Your task to perform on an android device: Go to location settings Image 0: 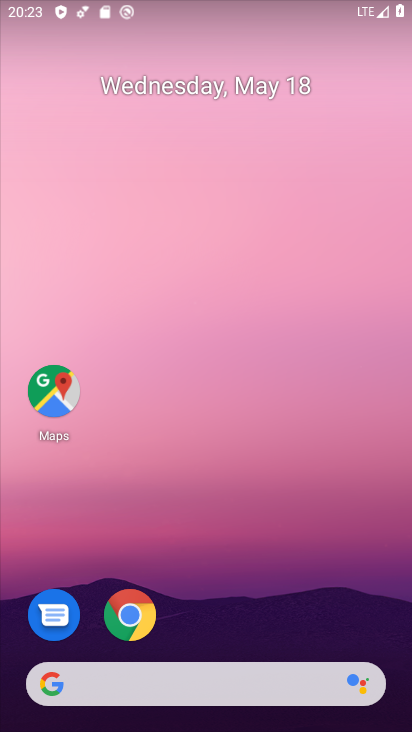
Step 0: drag from (197, 669) to (259, 57)
Your task to perform on an android device: Go to location settings Image 1: 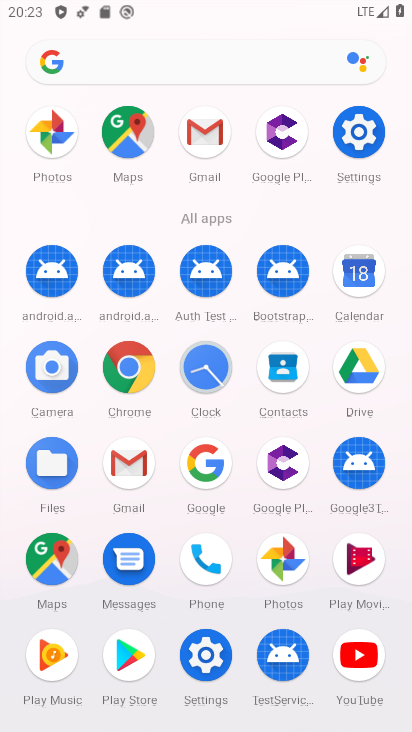
Step 1: click (363, 150)
Your task to perform on an android device: Go to location settings Image 2: 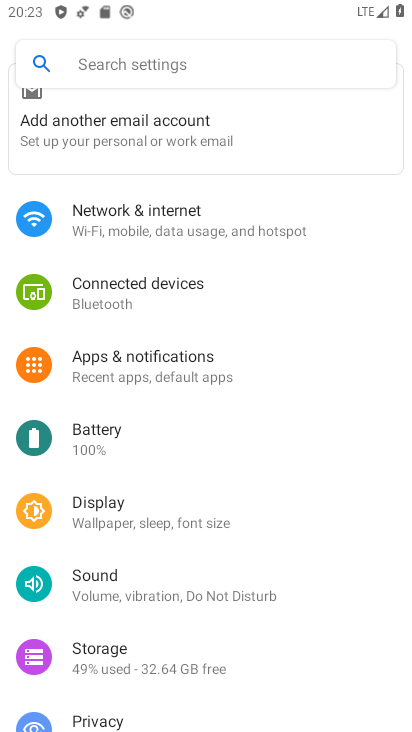
Step 2: drag from (117, 599) to (139, 222)
Your task to perform on an android device: Go to location settings Image 3: 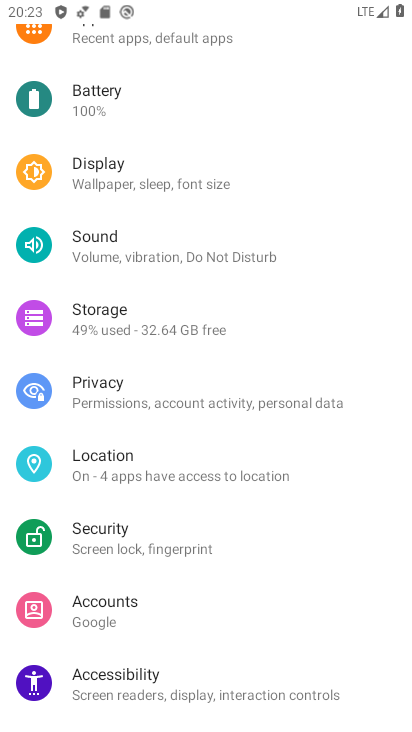
Step 3: click (127, 460)
Your task to perform on an android device: Go to location settings Image 4: 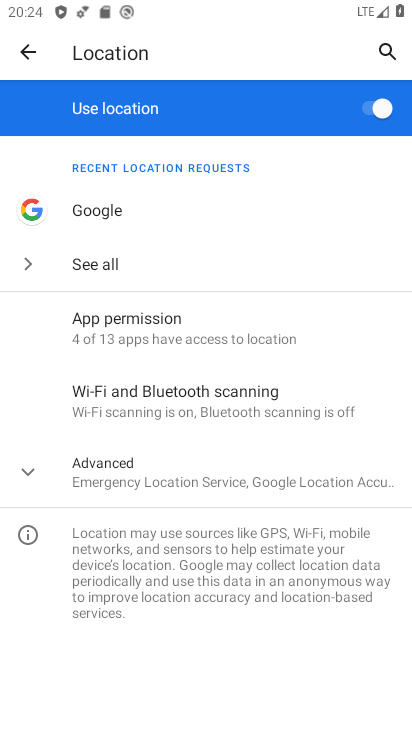
Step 4: task complete